Your task to perform on an android device: check battery use Image 0: 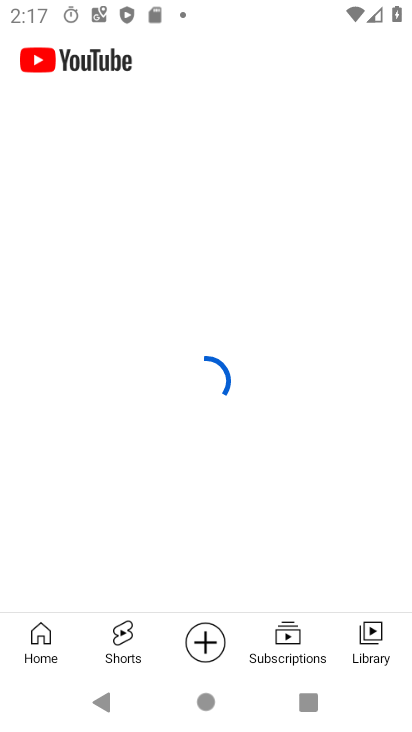
Step 0: drag from (290, 659) to (290, 213)
Your task to perform on an android device: check battery use Image 1: 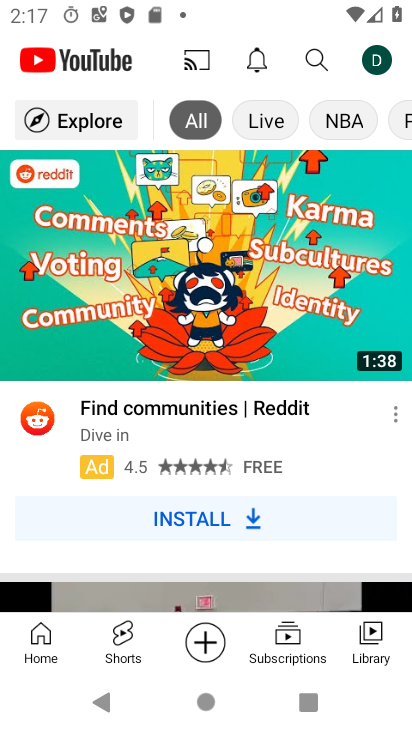
Step 1: press home button
Your task to perform on an android device: check battery use Image 2: 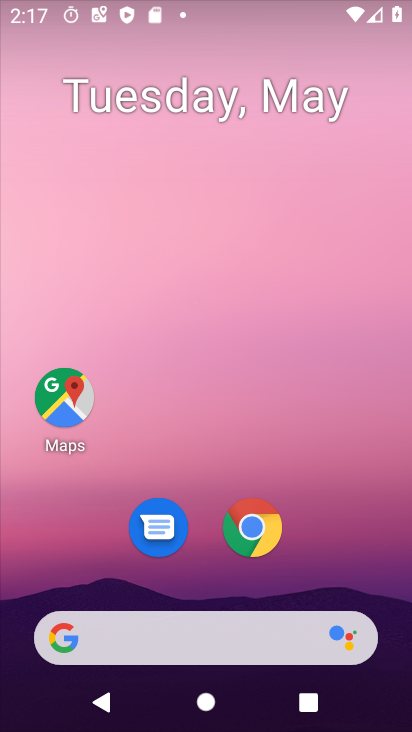
Step 2: drag from (221, 631) to (151, 202)
Your task to perform on an android device: check battery use Image 3: 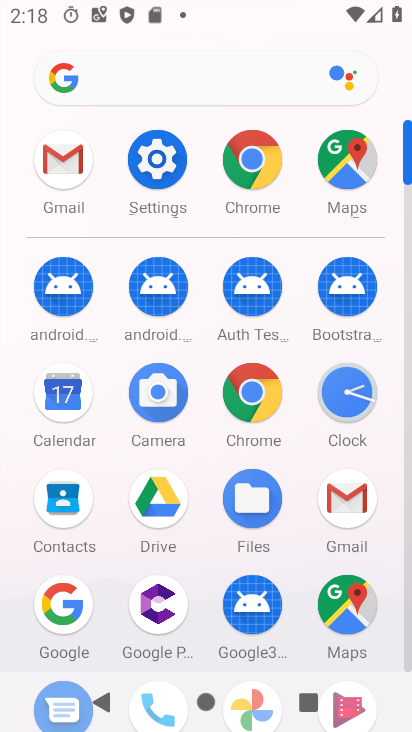
Step 3: click (166, 175)
Your task to perform on an android device: check battery use Image 4: 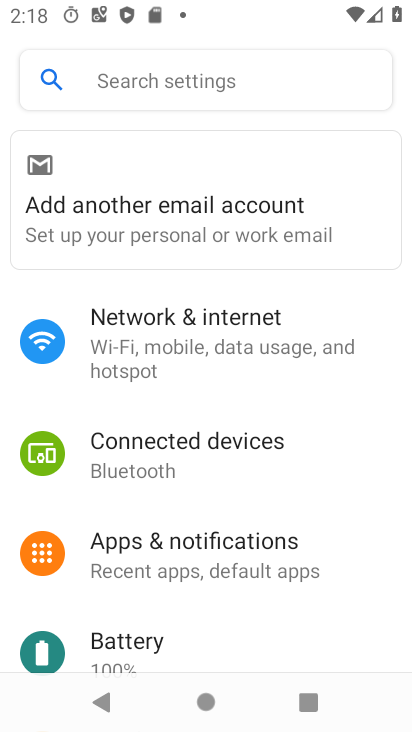
Step 4: click (158, 642)
Your task to perform on an android device: check battery use Image 5: 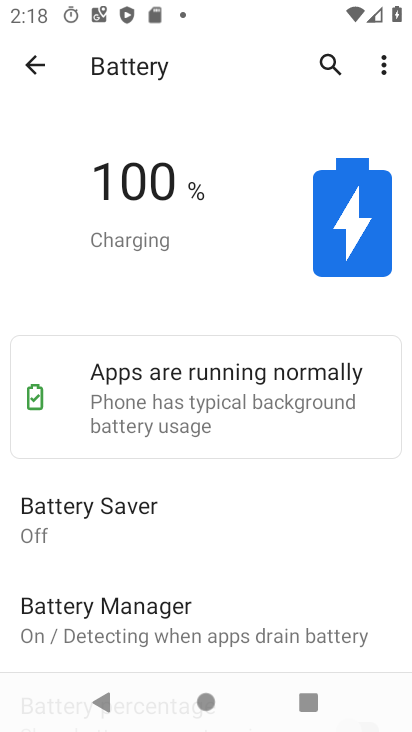
Step 5: task complete